Your task to perform on an android device: change the clock display to analog Image 0: 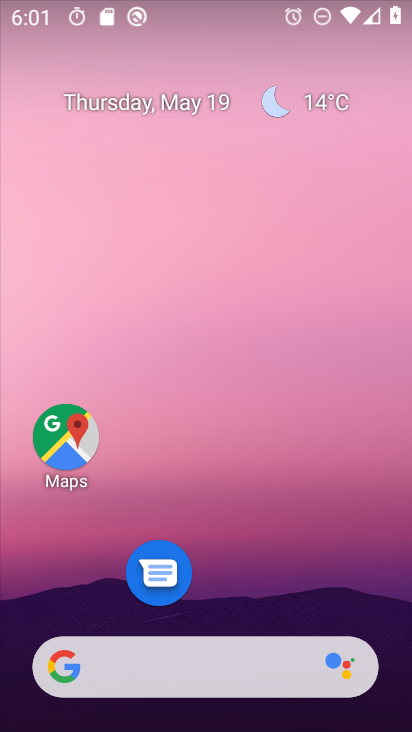
Step 0: drag from (237, 577) to (238, 132)
Your task to perform on an android device: change the clock display to analog Image 1: 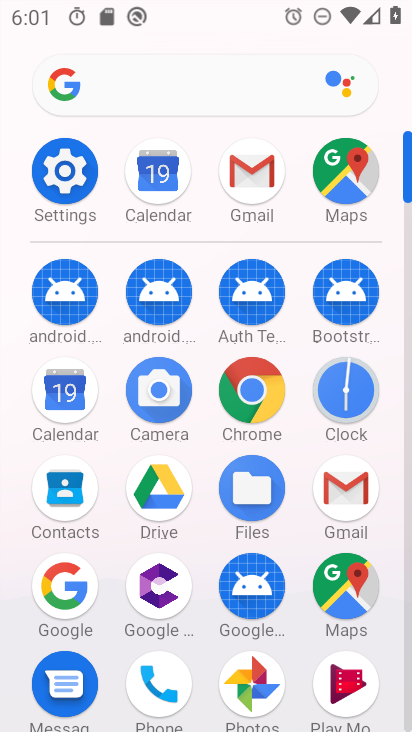
Step 1: click (352, 404)
Your task to perform on an android device: change the clock display to analog Image 2: 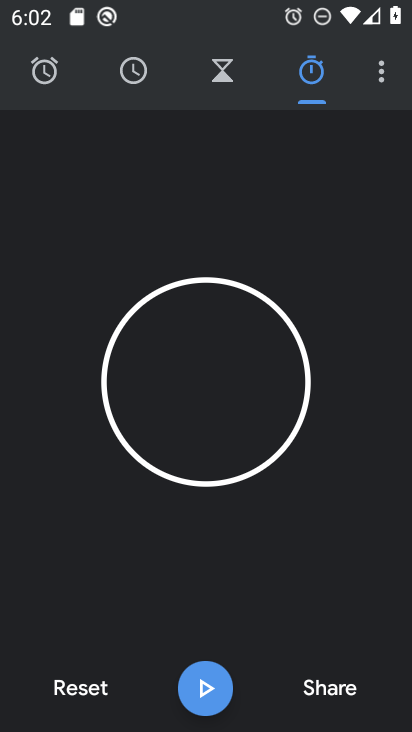
Step 2: click (378, 78)
Your task to perform on an android device: change the clock display to analog Image 3: 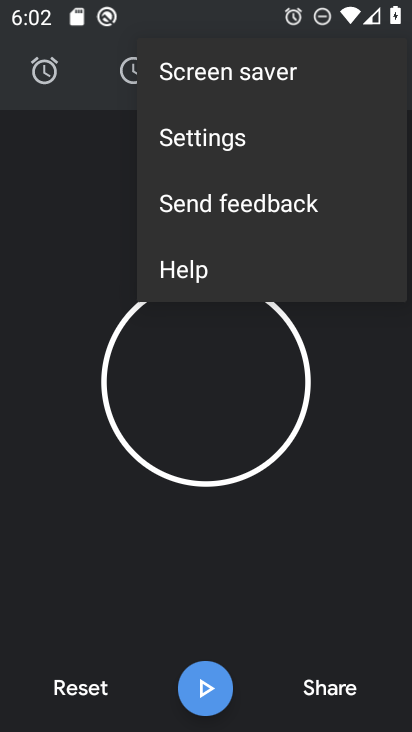
Step 3: click (169, 159)
Your task to perform on an android device: change the clock display to analog Image 4: 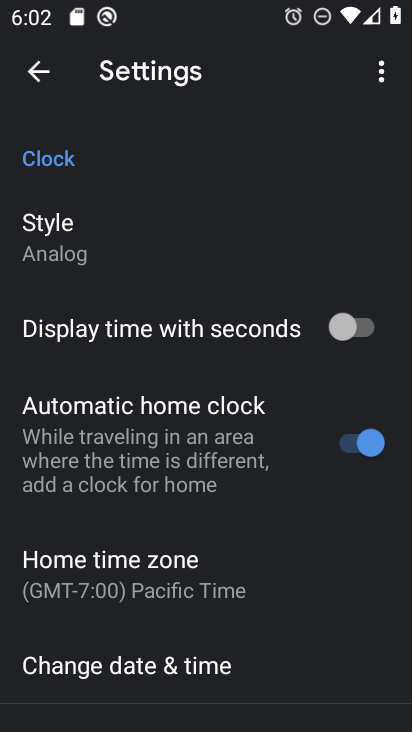
Step 4: click (68, 240)
Your task to perform on an android device: change the clock display to analog Image 5: 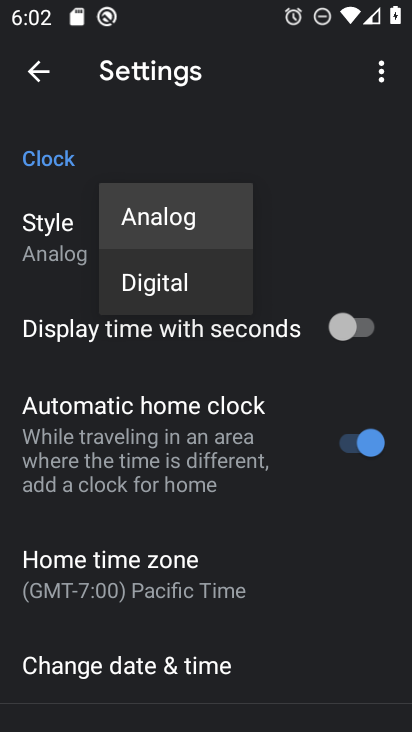
Step 5: task complete